Your task to perform on an android device: Go to Reddit.com Image 0: 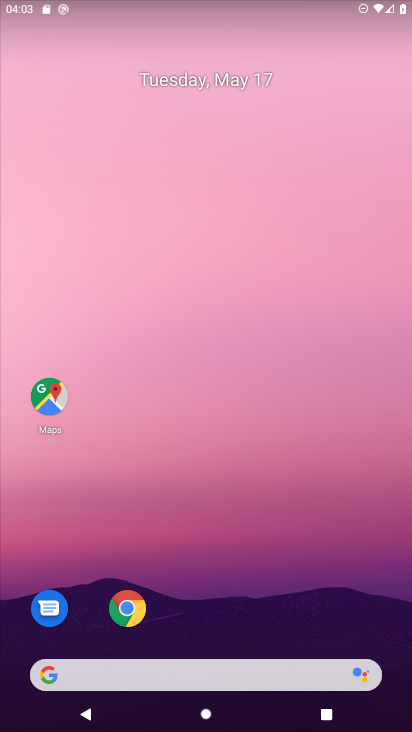
Step 0: drag from (168, 664) to (262, 106)
Your task to perform on an android device: Go to Reddit.com Image 1: 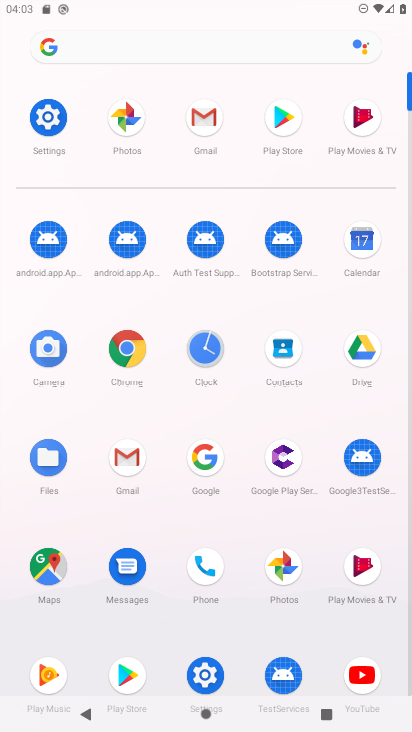
Step 1: click (202, 449)
Your task to perform on an android device: Go to Reddit.com Image 2: 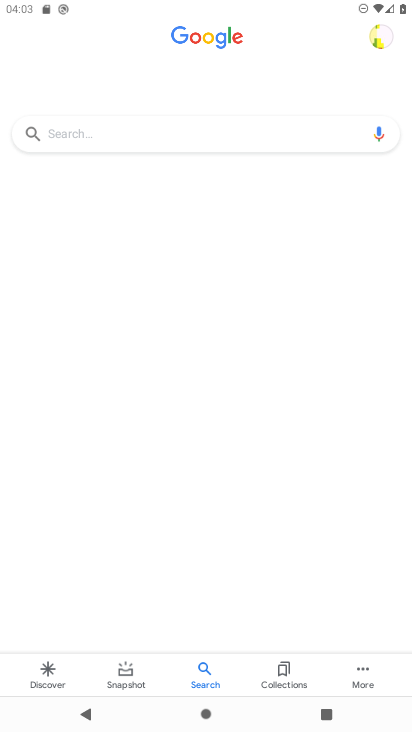
Step 2: click (120, 126)
Your task to perform on an android device: Go to Reddit.com Image 3: 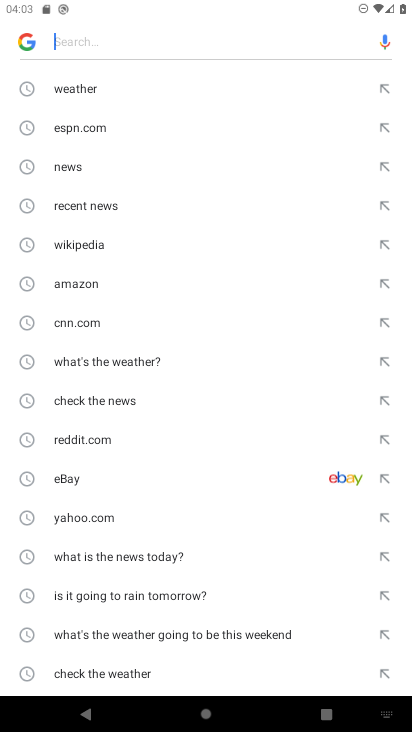
Step 3: click (78, 445)
Your task to perform on an android device: Go to Reddit.com Image 4: 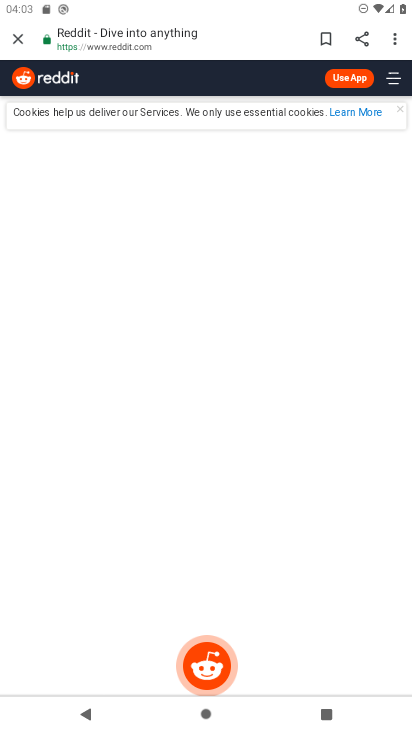
Step 4: task complete